Your task to perform on an android device: turn on wifi Image 0: 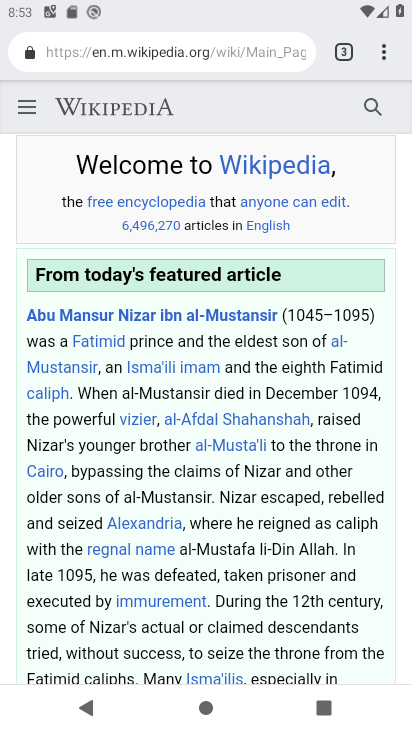
Step 0: press home button
Your task to perform on an android device: turn on wifi Image 1: 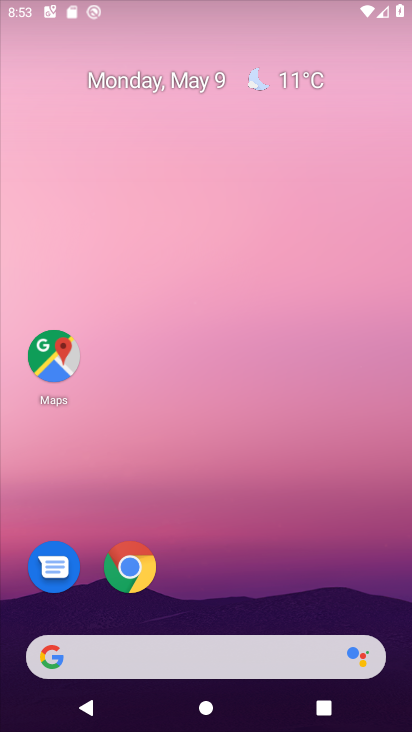
Step 1: drag from (252, 519) to (246, 52)
Your task to perform on an android device: turn on wifi Image 2: 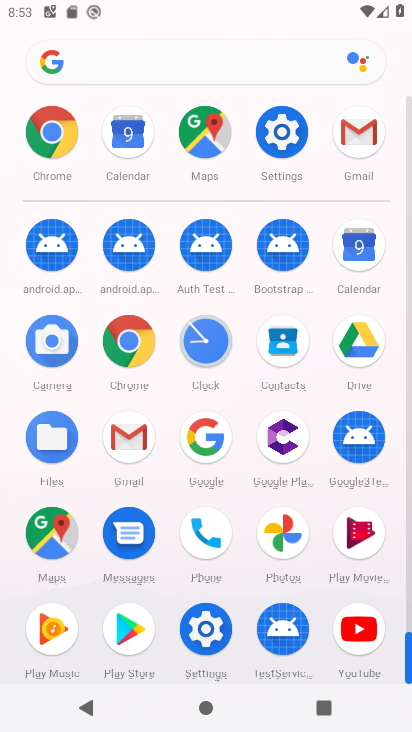
Step 2: click (284, 127)
Your task to perform on an android device: turn on wifi Image 3: 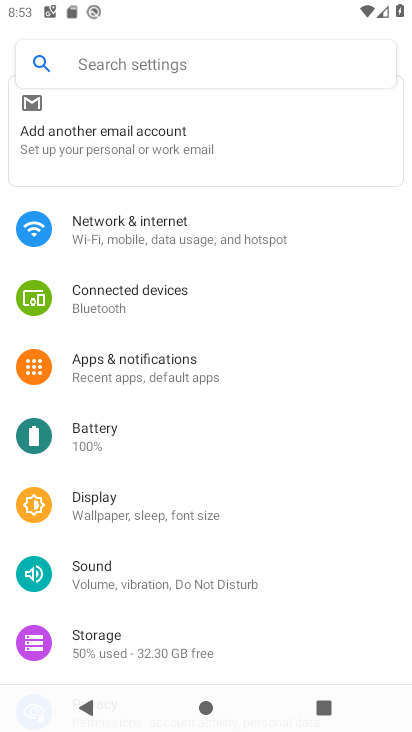
Step 3: click (219, 237)
Your task to perform on an android device: turn on wifi Image 4: 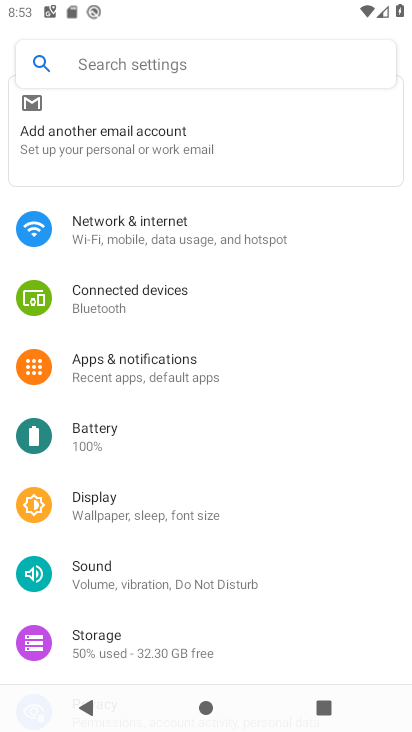
Step 4: click (226, 219)
Your task to perform on an android device: turn on wifi Image 5: 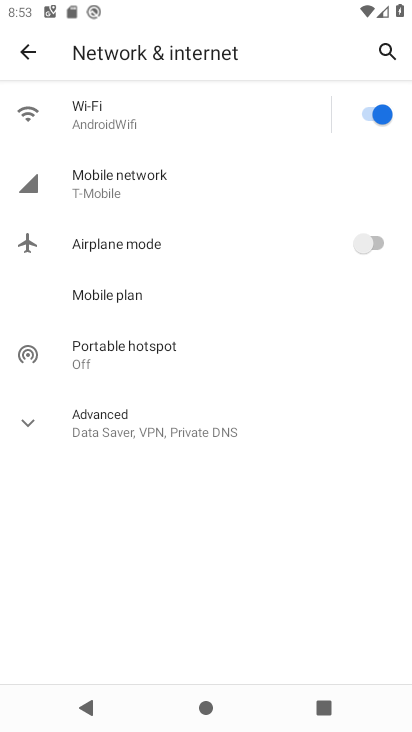
Step 5: task complete